Your task to perform on an android device: Open Wikipedia Image 0: 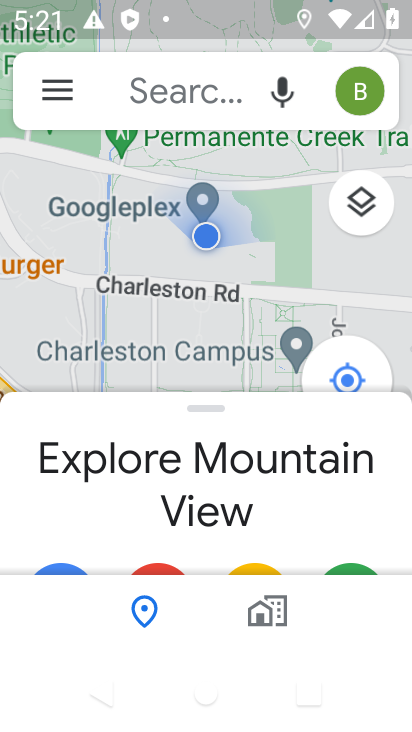
Step 0: press home button
Your task to perform on an android device: Open Wikipedia Image 1: 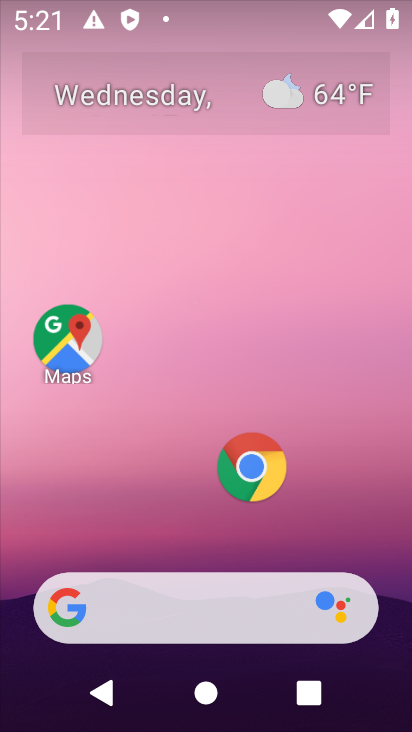
Step 1: click (218, 595)
Your task to perform on an android device: Open Wikipedia Image 2: 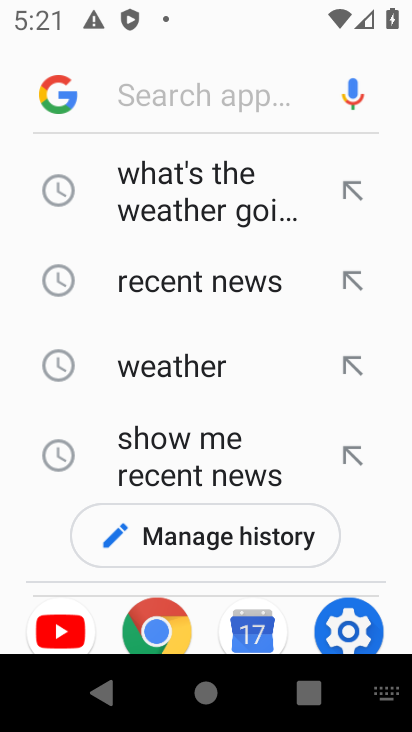
Step 2: type "Open Wikipedia"
Your task to perform on an android device: Open Wikipedia Image 3: 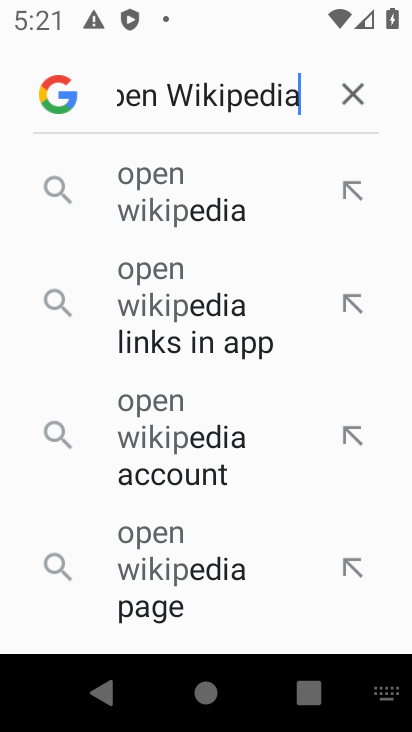
Step 3: task complete